Your task to perform on an android device: Open Youtube and go to the subscriptions tab Image 0: 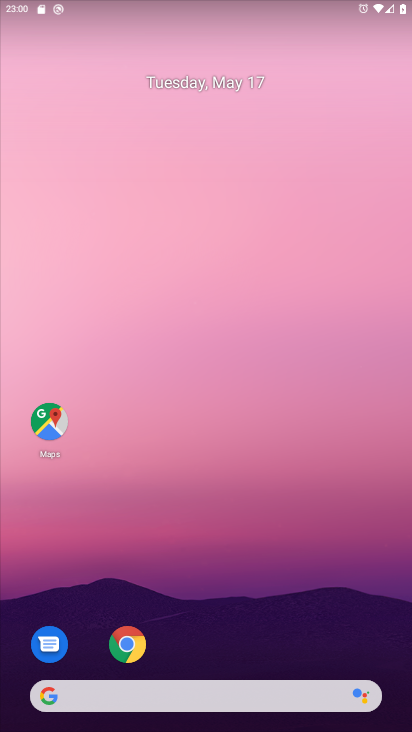
Step 0: drag from (220, 667) to (263, 54)
Your task to perform on an android device: Open Youtube and go to the subscriptions tab Image 1: 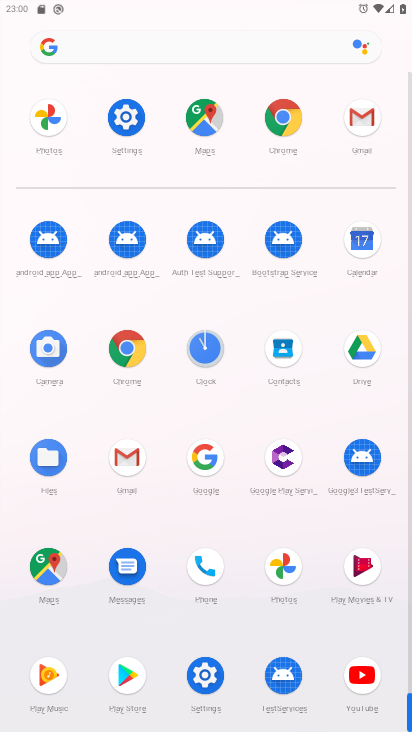
Step 1: click (360, 672)
Your task to perform on an android device: Open Youtube and go to the subscriptions tab Image 2: 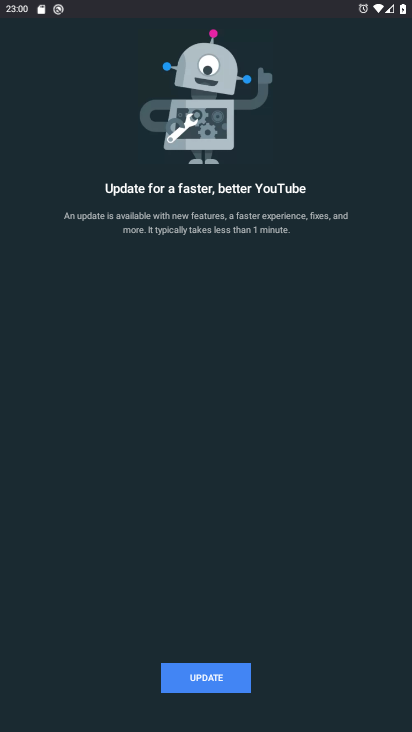
Step 2: click (210, 683)
Your task to perform on an android device: Open Youtube and go to the subscriptions tab Image 3: 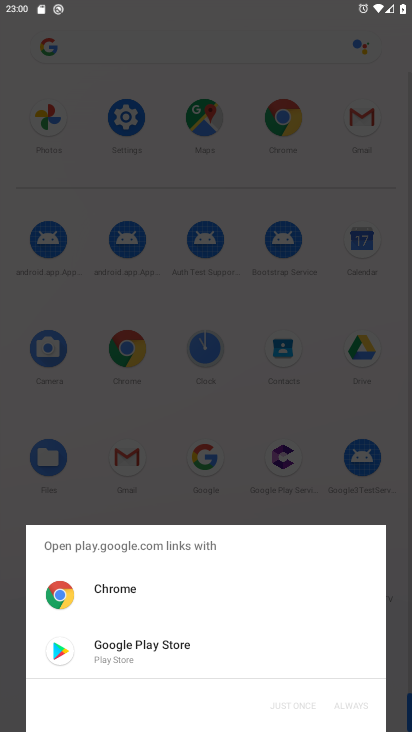
Step 3: click (129, 649)
Your task to perform on an android device: Open Youtube and go to the subscriptions tab Image 4: 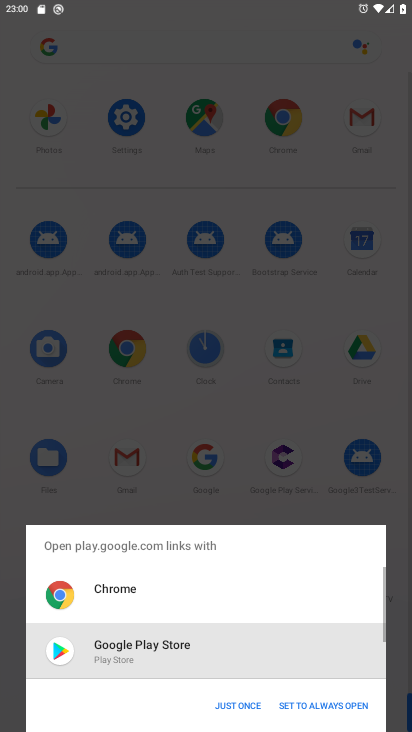
Step 4: click (229, 705)
Your task to perform on an android device: Open Youtube and go to the subscriptions tab Image 5: 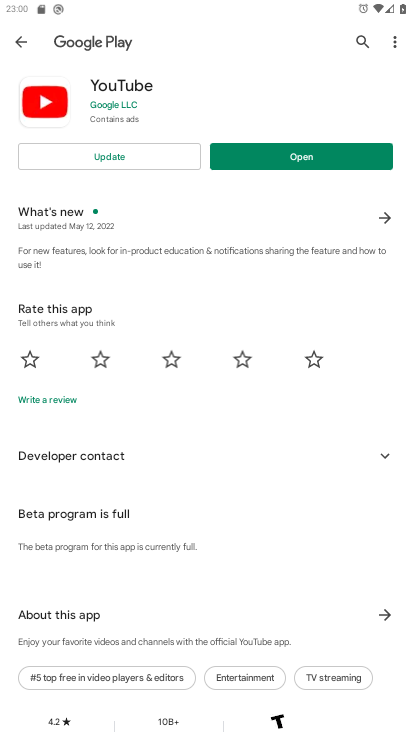
Step 5: click (112, 154)
Your task to perform on an android device: Open Youtube and go to the subscriptions tab Image 6: 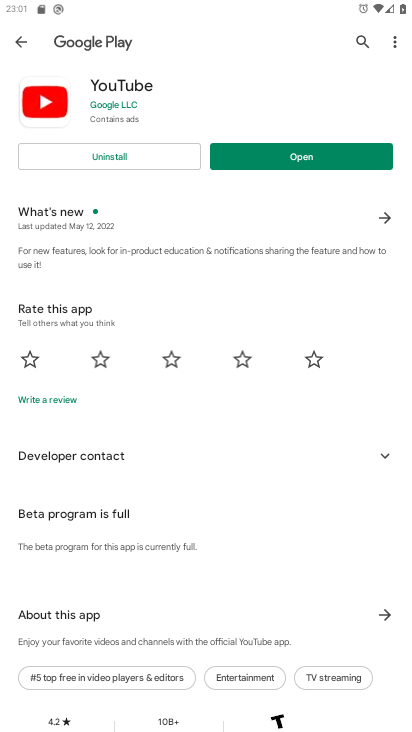
Step 6: click (301, 157)
Your task to perform on an android device: Open Youtube and go to the subscriptions tab Image 7: 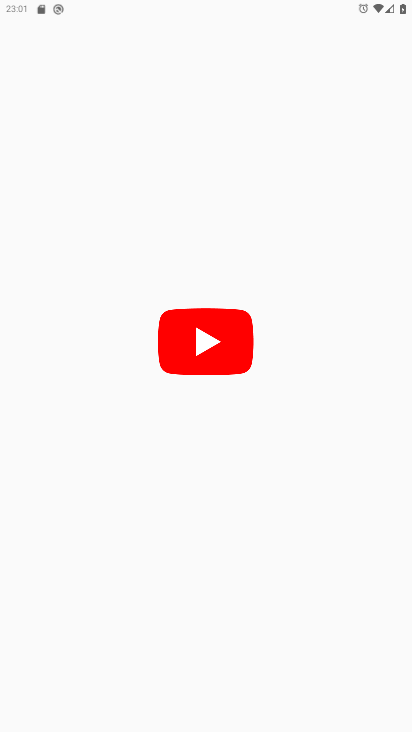
Step 7: task complete